Your task to perform on an android device: toggle translation in the chrome app Image 0: 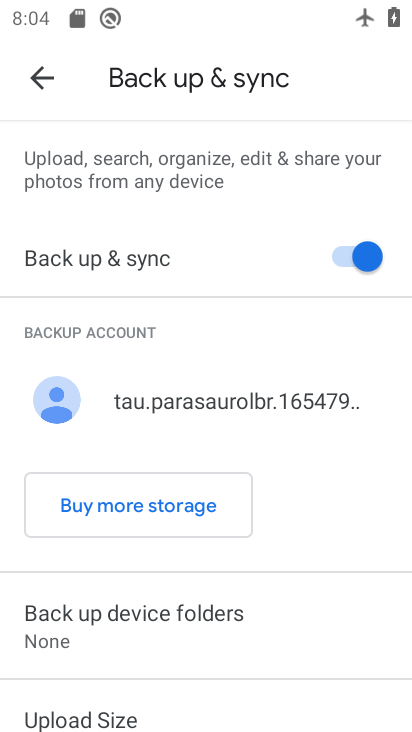
Step 0: press home button
Your task to perform on an android device: toggle translation in the chrome app Image 1: 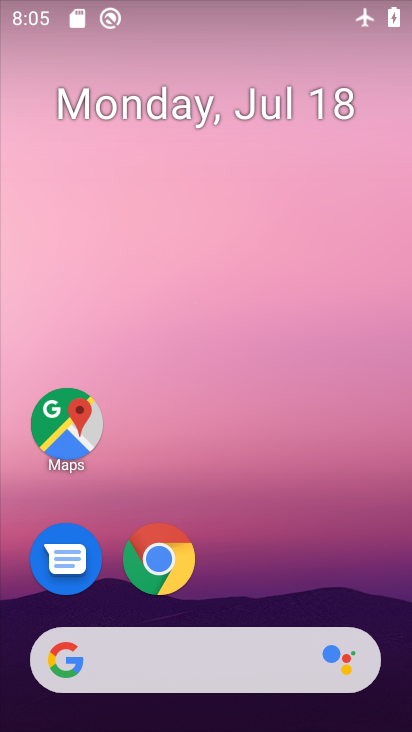
Step 1: drag from (367, 576) to (408, 183)
Your task to perform on an android device: toggle translation in the chrome app Image 2: 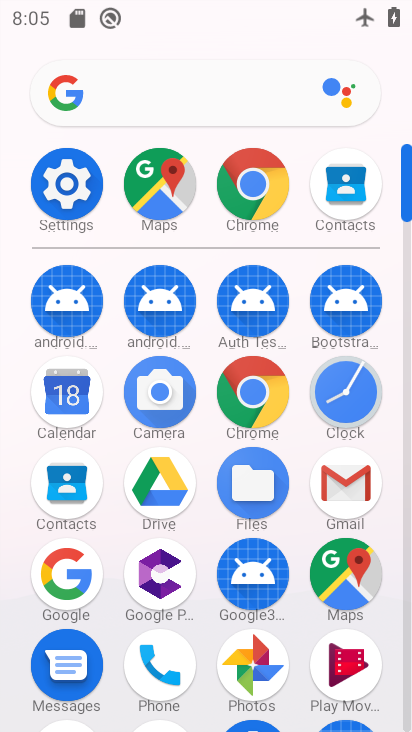
Step 2: click (258, 391)
Your task to perform on an android device: toggle translation in the chrome app Image 3: 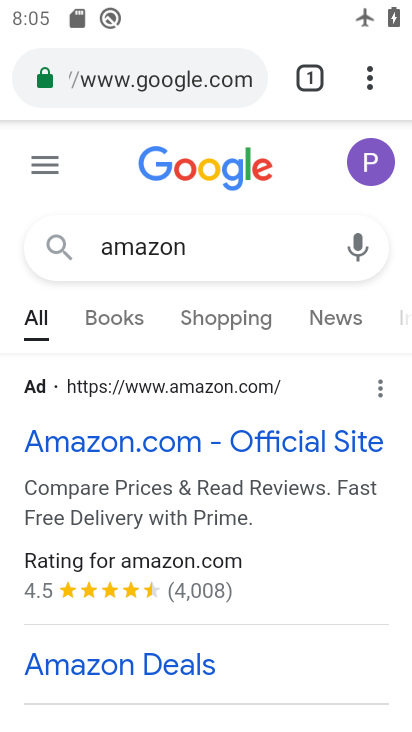
Step 3: click (366, 86)
Your task to perform on an android device: toggle translation in the chrome app Image 4: 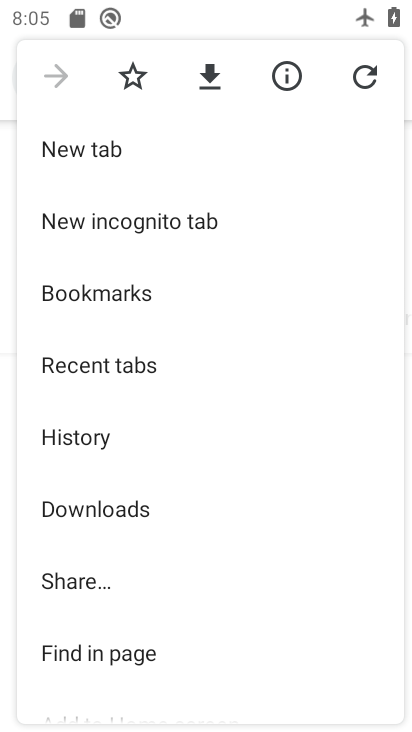
Step 4: drag from (343, 384) to (348, 316)
Your task to perform on an android device: toggle translation in the chrome app Image 5: 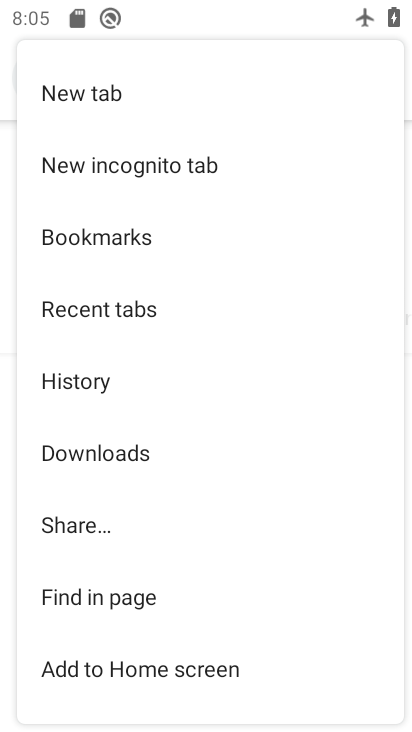
Step 5: drag from (340, 450) to (342, 360)
Your task to perform on an android device: toggle translation in the chrome app Image 6: 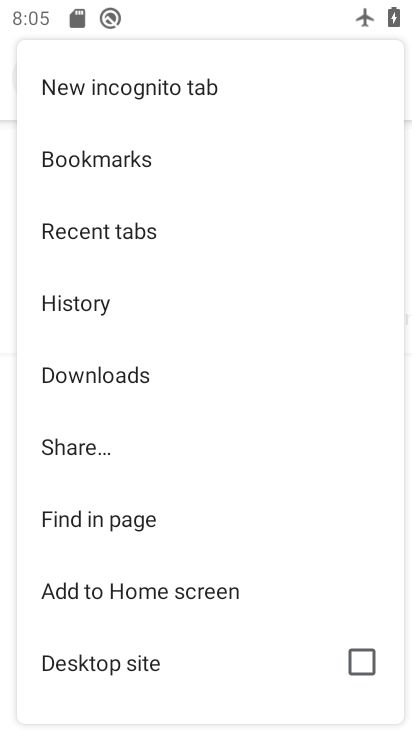
Step 6: drag from (344, 420) to (346, 340)
Your task to perform on an android device: toggle translation in the chrome app Image 7: 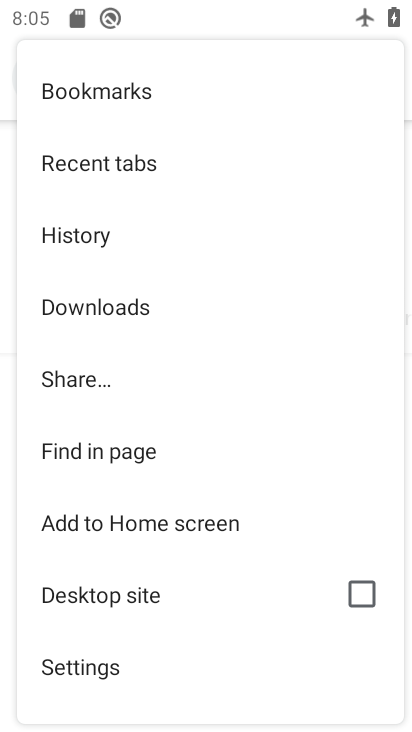
Step 7: drag from (326, 440) to (330, 371)
Your task to perform on an android device: toggle translation in the chrome app Image 8: 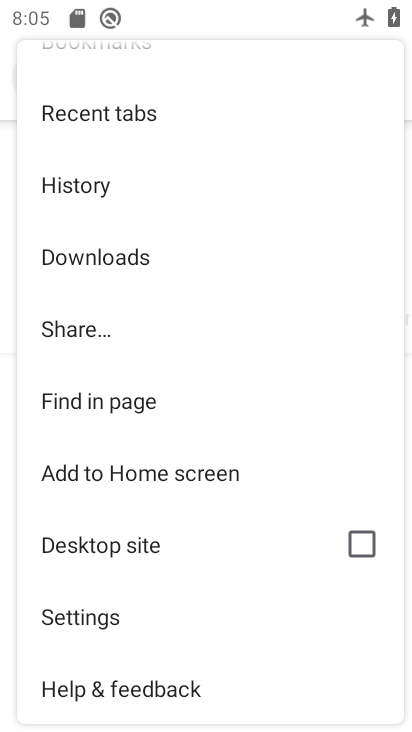
Step 8: click (192, 622)
Your task to perform on an android device: toggle translation in the chrome app Image 9: 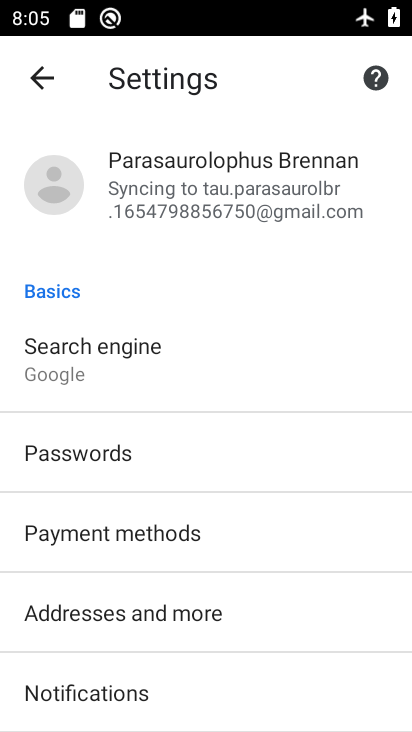
Step 9: drag from (275, 627) to (287, 561)
Your task to perform on an android device: toggle translation in the chrome app Image 10: 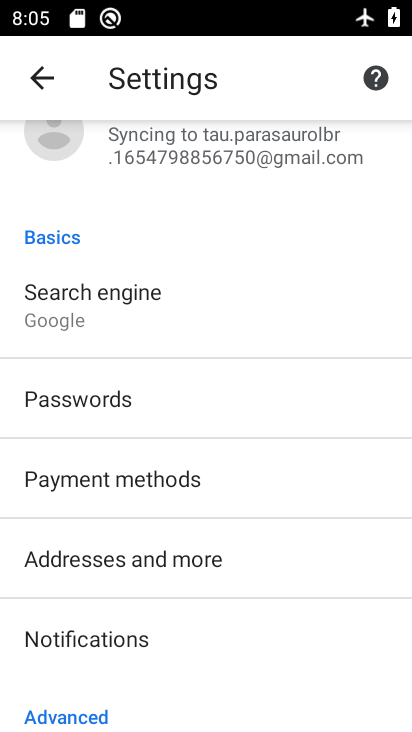
Step 10: drag from (293, 616) to (319, 438)
Your task to perform on an android device: toggle translation in the chrome app Image 11: 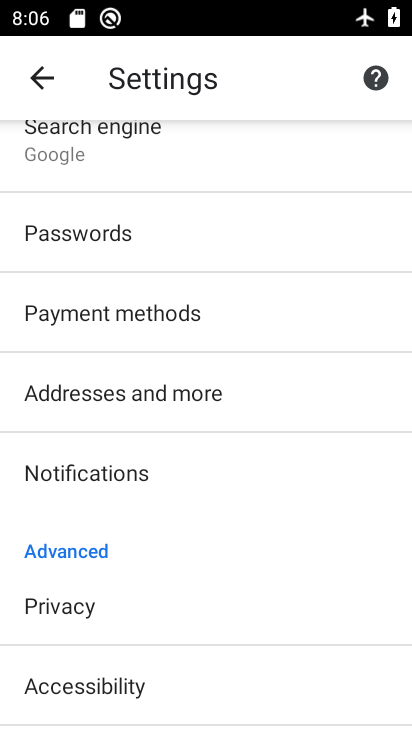
Step 11: drag from (298, 550) to (312, 448)
Your task to perform on an android device: toggle translation in the chrome app Image 12: 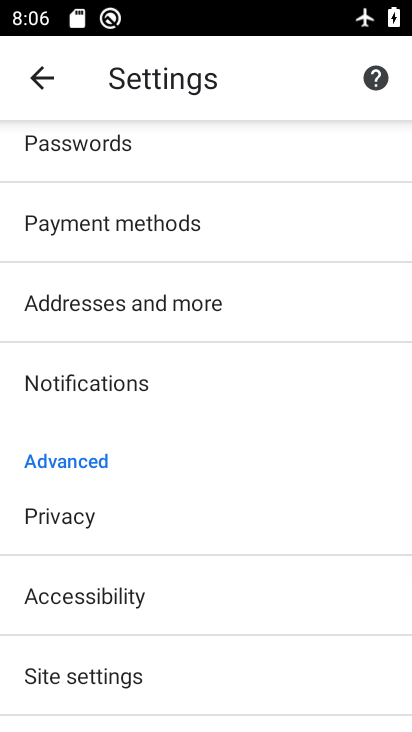
Step 12: drag from (294, 587) to (321, 458)
Your task to perform on an android device: toggle translation in the chrome app Image 13: 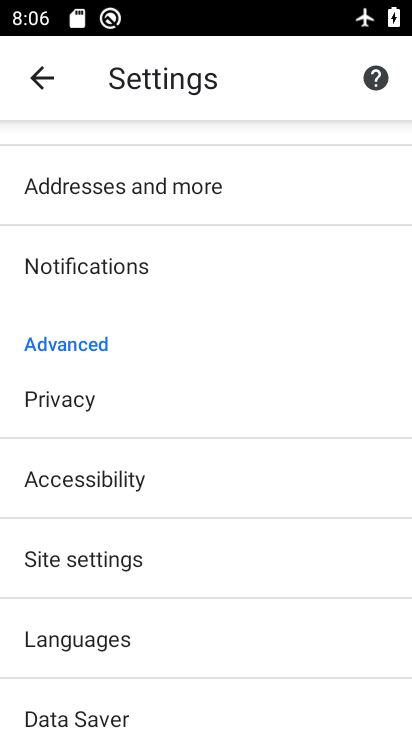
Step 13: drag from (319, 604) to (328, 492)
Your task to perform on an android device: toggle translation in the chrome app Image 14: 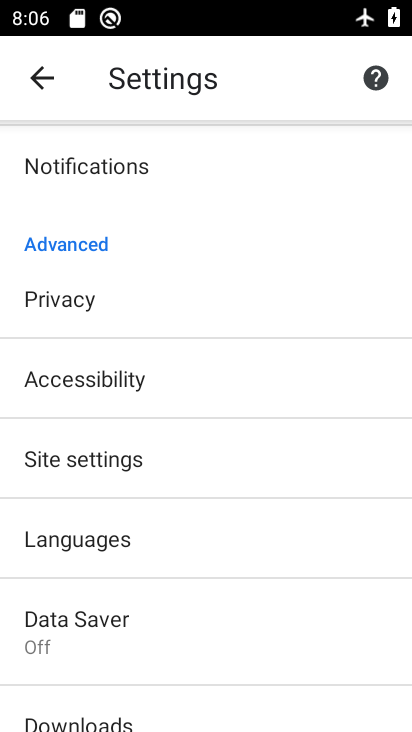
Step 14: click (296, 540)
Your task to perform on an android device: toggle translation in the chrome app Image 15: 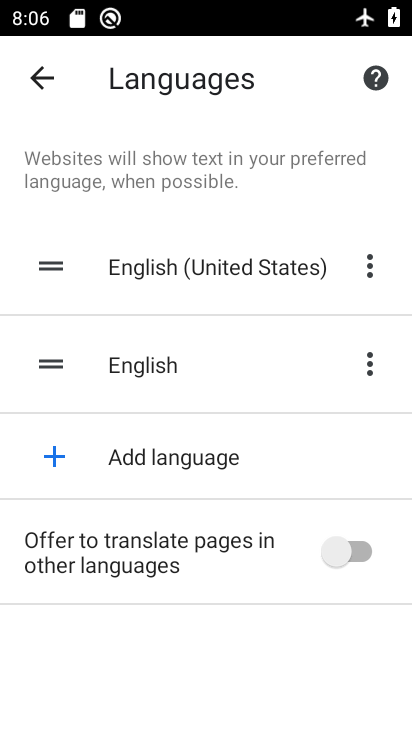
Step 15: click (343, 559)
Your task to perform on an android device: toggle translation in the chrome app Image 16: 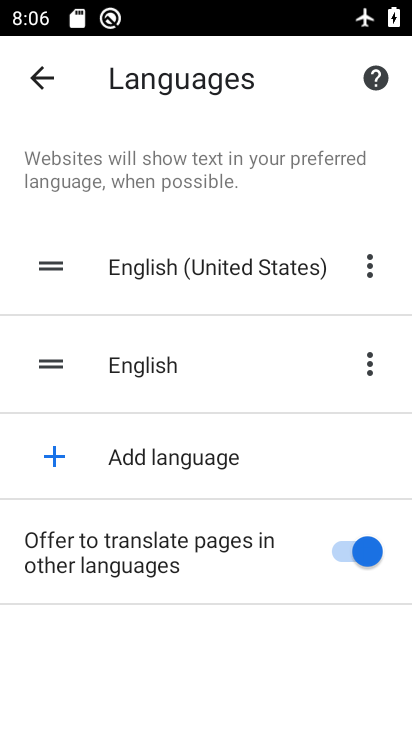
Step 16: task complete